Your task to perform on an android device: Go to calendar. Show me events next week Image 0: 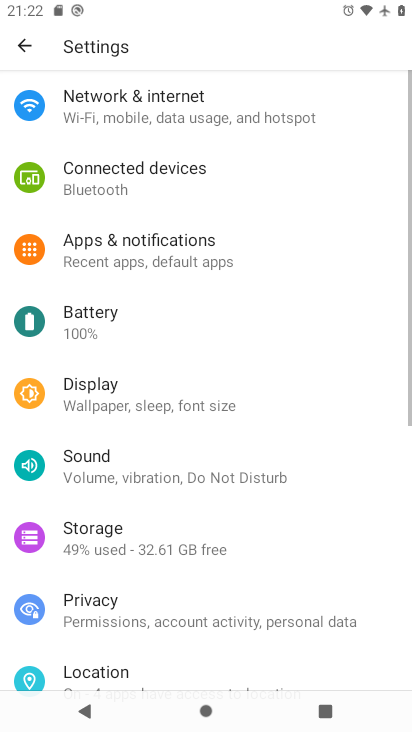
Step 0: press home button
Your task to perform on an android device: Go to calendar. Show me events next week Image 1: 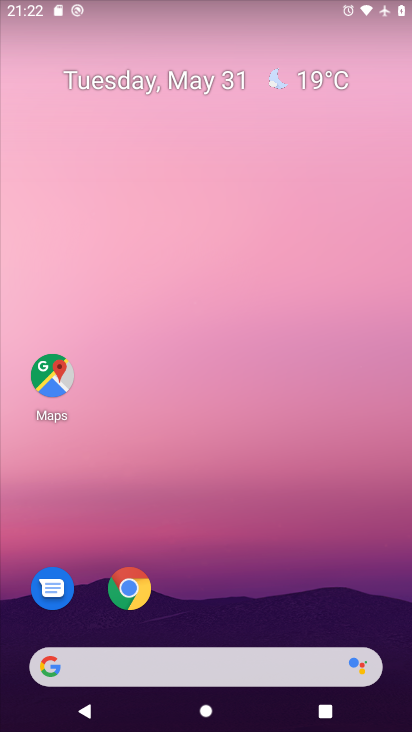
Step 1: drag from (127, 669) to (355, 36)
Your task to perform on an android device: Go to calendar. Show me events next week Image 2: 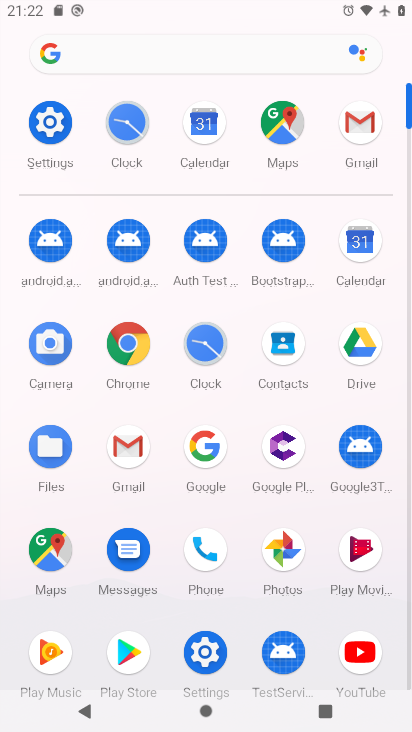
Step 2: click (360, 245)
Your task to perform on an android device: Go to calendar. Show me events next week Image 3: 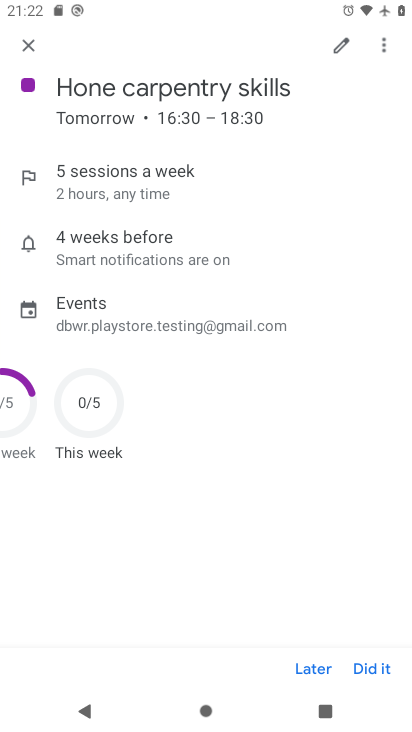
Step 3: click (27, 47)
Your task to perform on an android device: Go to calendar. Show me events next week Image 4: 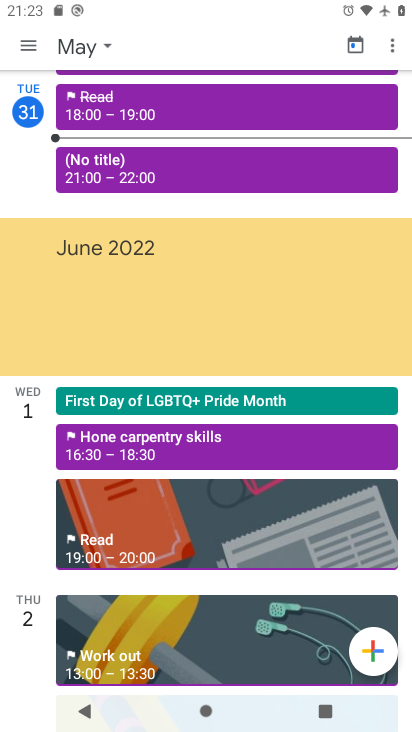
Step 4: click (87, 45)
Your task to perform on an android device: Go to calendar. Show me events next week Image 5: 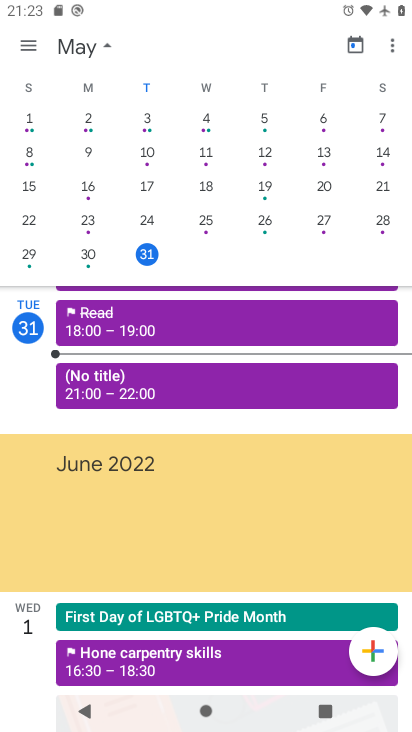
Step 5: drag from (318, 188) to (89, 210)
Your task to perform on an android device: Go to calendar. Show me events next week Image 6: 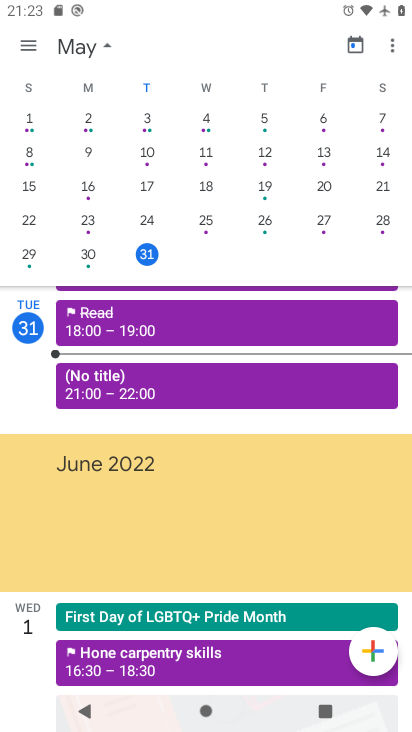
Step 6: drag from (354, 177) to (27, 219)
Your task to perform on an android device: Go to calendar. Show me events next week Image 7: 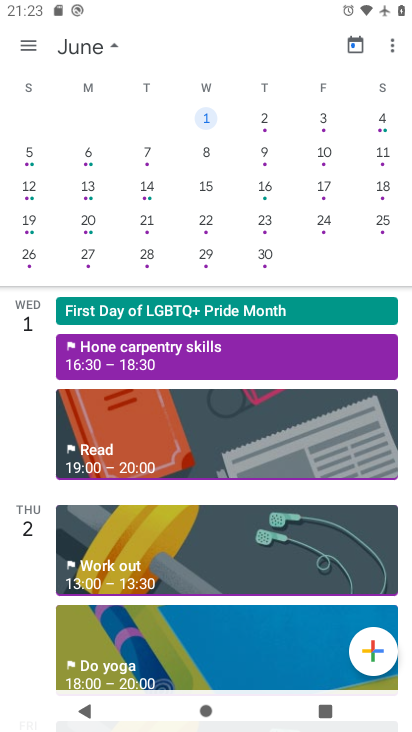
Step 7: click (27, 154)
Your task to perform on an android device: Go to calendar. Show me events next week Image 8: 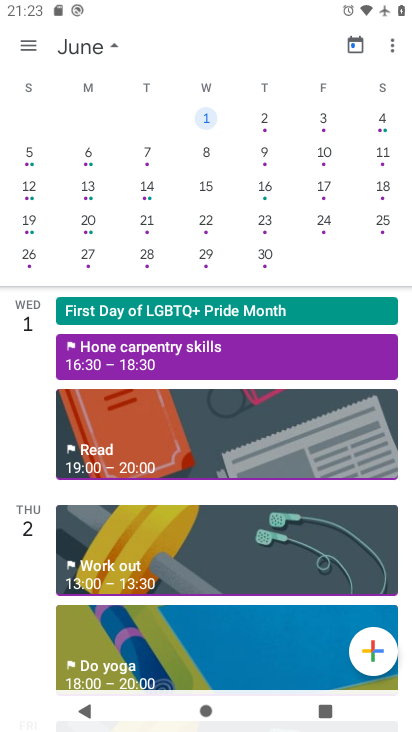
Step 8: click (33, 153)
Your task to perform on an android device: Go to calendar. Show me events next week Image 9: 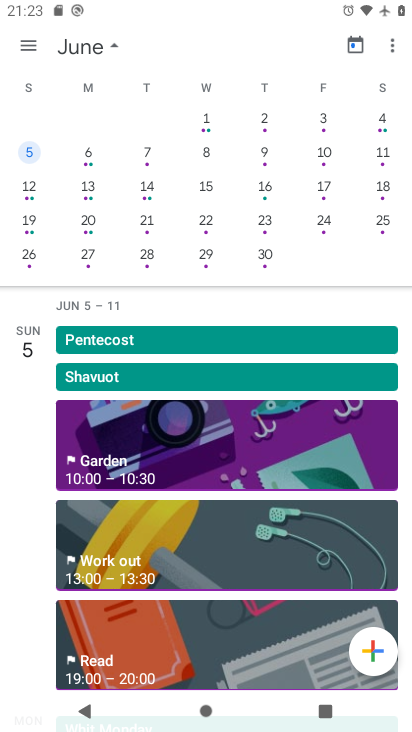
Step 9: click (29, 43)
Your task to perform on an android device: Go to calendar. Show me events next week Image 10: 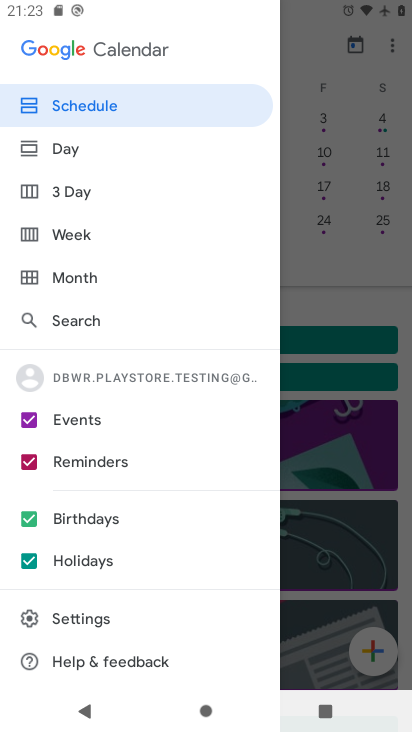
Step 10: click (83, 232)
Your task to perform on an android device: Go to calendar. Show me events next week Image 11: 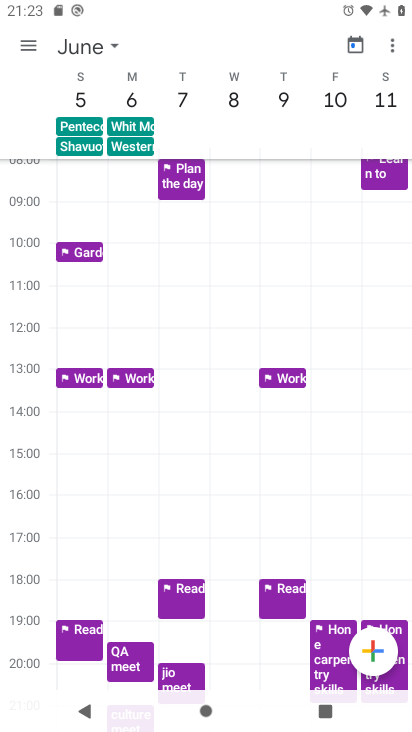
Step 11: click (25, 44)
Your task to perform on an android device: Go to calendar. Show me events next week Image 12: 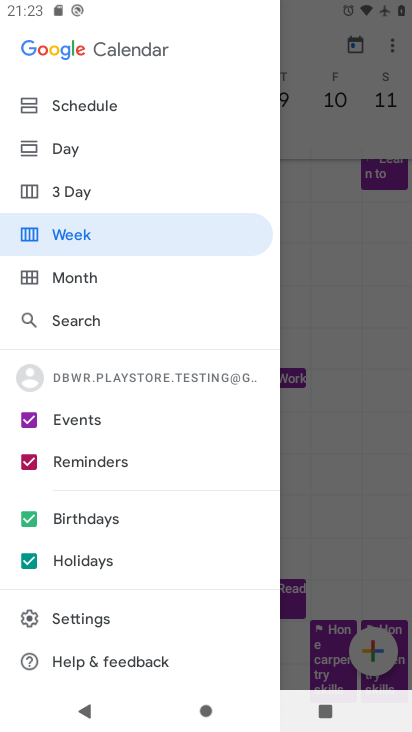
Step 12: click (67, 103)
Your task to perform on an android device: Go to calendar. Show me events next week Image 13: 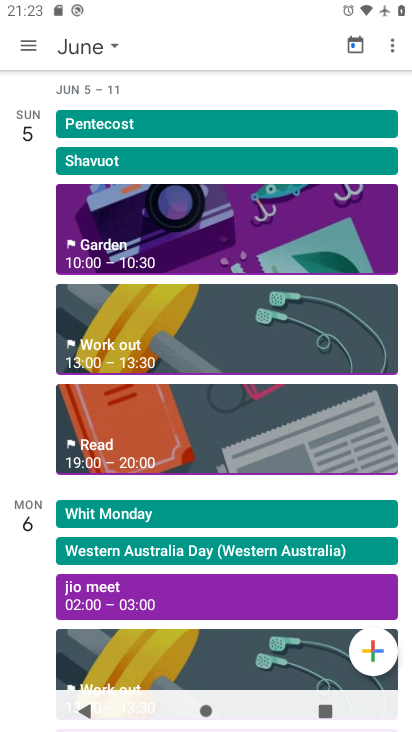
Step 13: click (133, 228)
Your task to perform on an android device: Go to calendar. Show me events next week Image 14: 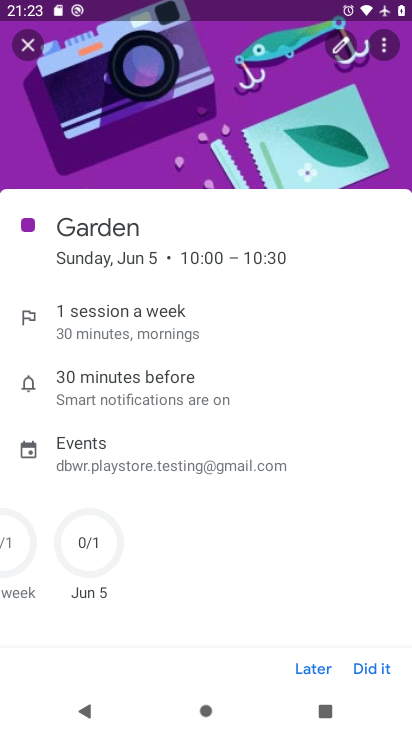
Step 14: task complete